Your task to perform on an android device: manage bookmarks in the chrome app Image 0: 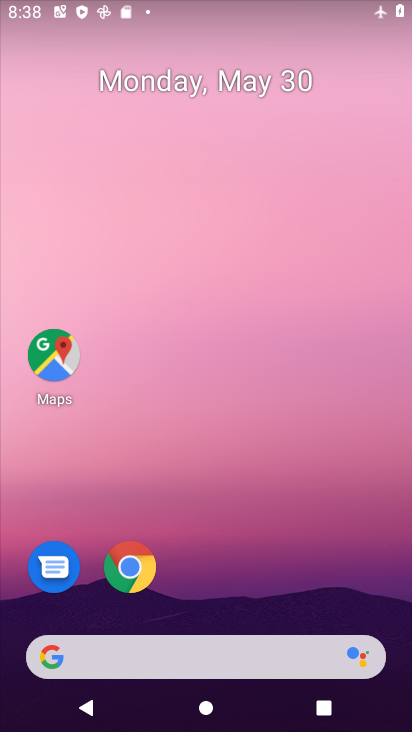
Step 0: click (139, 557)
Your task to perform on an android device: manage bookmarks in the chrome app Image 1: 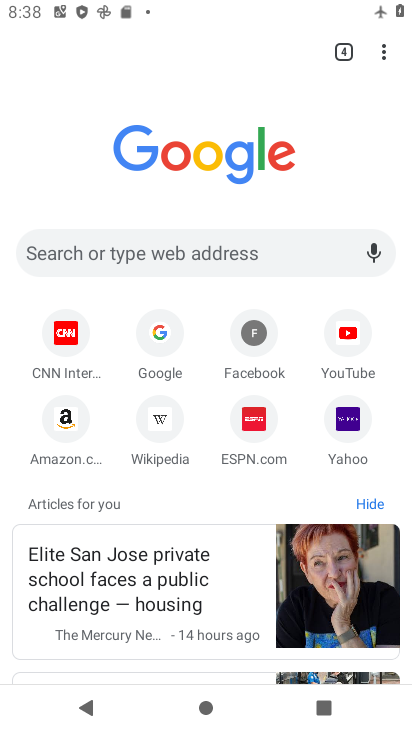
Step 1: click (383, 55)
Your task to perform on an android device: manage bookmarks in the chrome app Image 2: 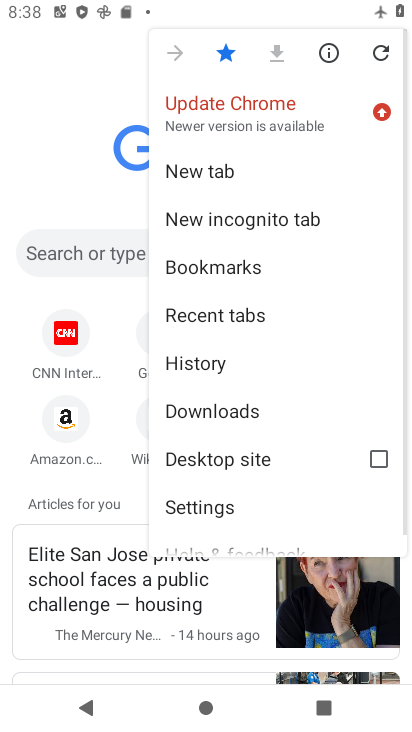
Step 2: click (266, 279)
Your task to perform on an android device: manage bookmarks in the chrome app Image 3: 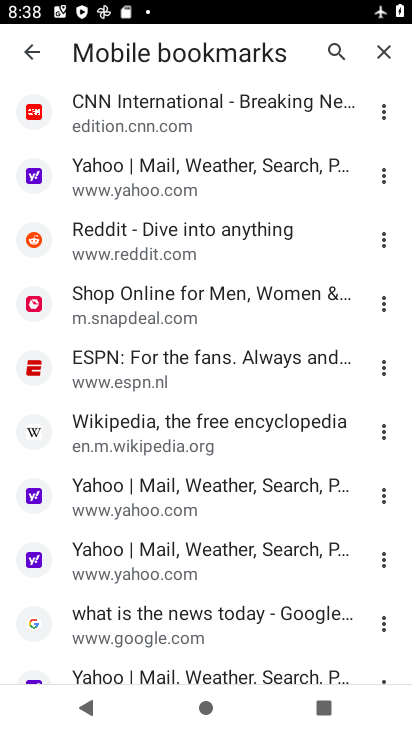
Step 3: click (227, 176)
Your task to perform on an android device: manage bookmarks in the chrome app Image 4: 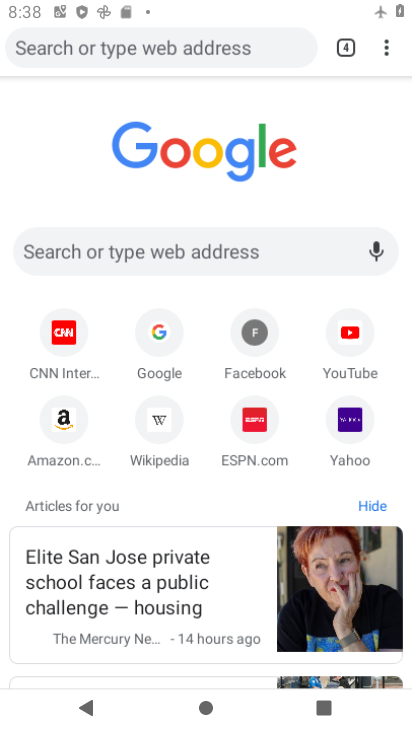
Step 4: task complete